Your task to perform on an android device: open device folders in google photos Image 0: 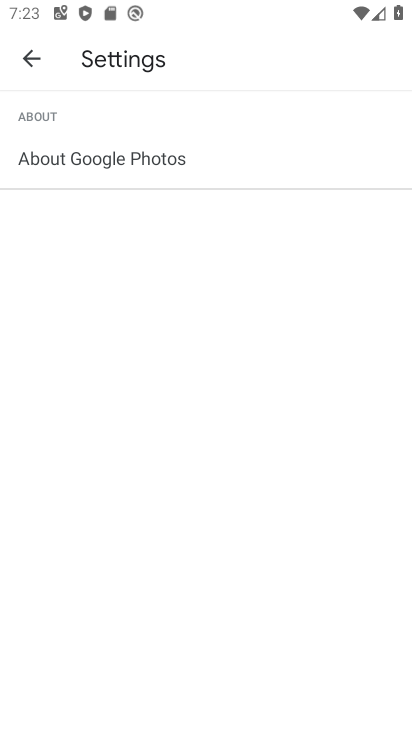
Step 0: press home button
Your task to perform on an android device: open device folders in google photos Image 1: 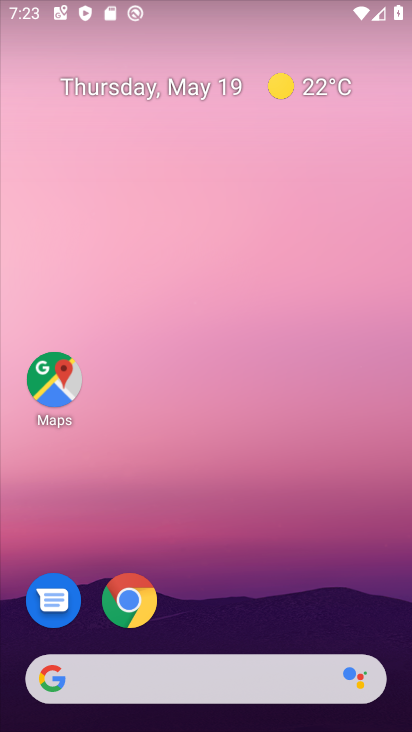
Step 1: drag from (340, 564) to (279, 127)
Your task to perform on an android device: open device folders in google photos Image 2: 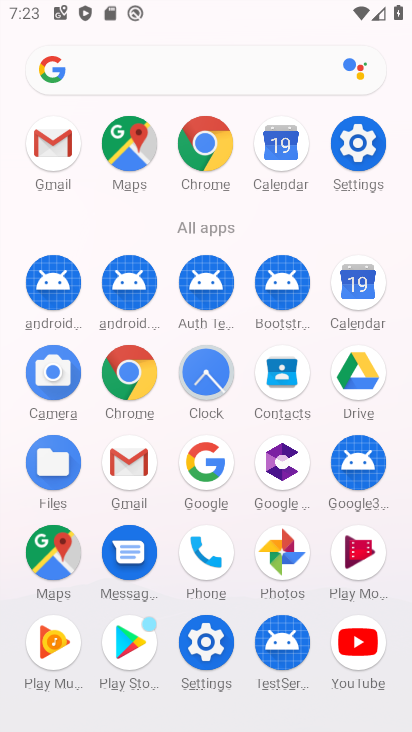
Step 2: click (279, 555)
Your task to perform on an android device: open device folders in google photos Image 3: 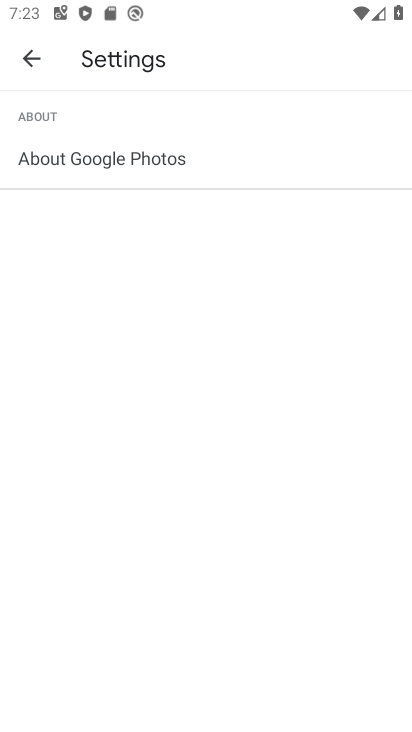
Step 3: click (28, 53)
Your task to perform on an android device: open device folders in google photos Image 4: 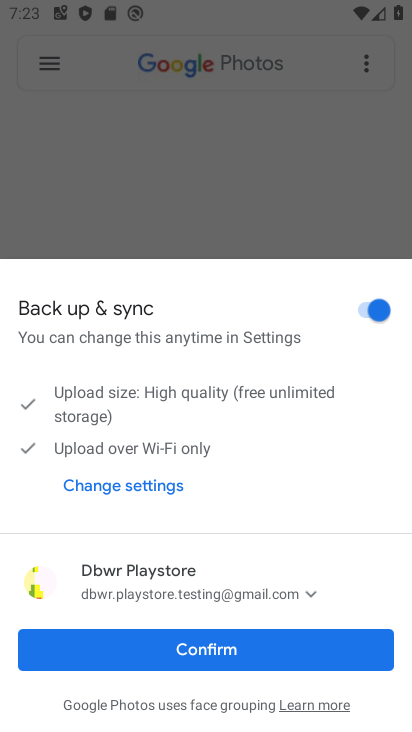
Step 4: click (281, 650)
Your task to perform on an android device: open device folders in google photos Image 5: 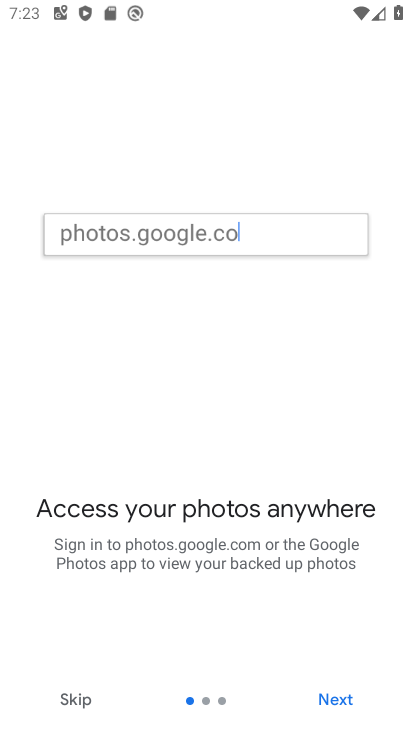
Step 5: click (327, 705)
Your task to perform on an android device: open device folders in google photos Image 6: 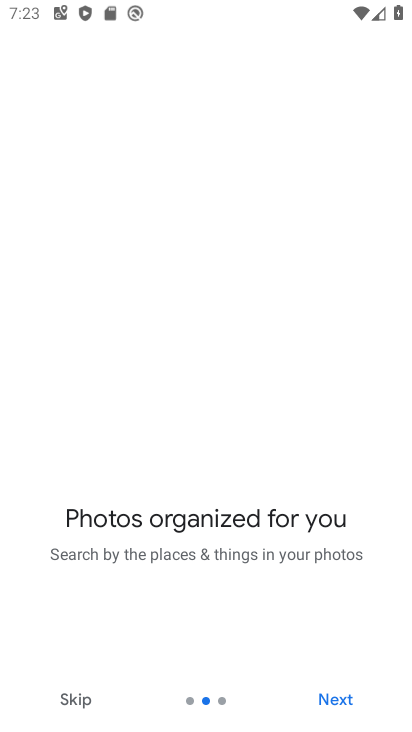
Step 6: click (327, 705)
Your task to perform on an android device: open device folders in google photos Image 7: 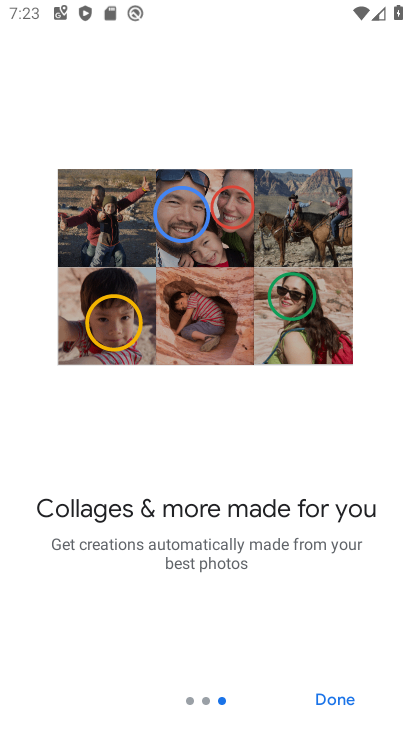
Step 7: click (327, 703)
Your task to perform on an android device: open device folders in google photos Image 8: 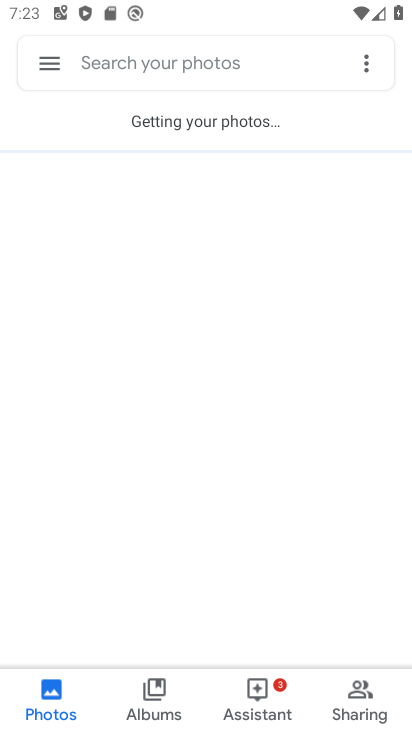
Step 8: click (48, 71)
Your task to perform on an android device: open device folders in google photos Image 9: 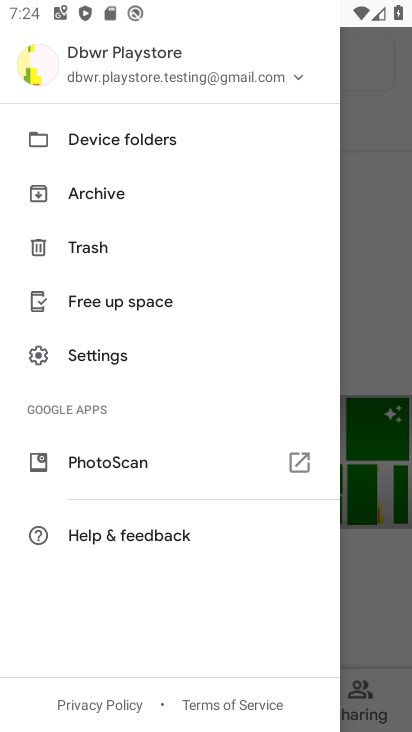
Step 9: click (190, 356)
Your task to perform on an android device: open device folders in google photos Image 10: 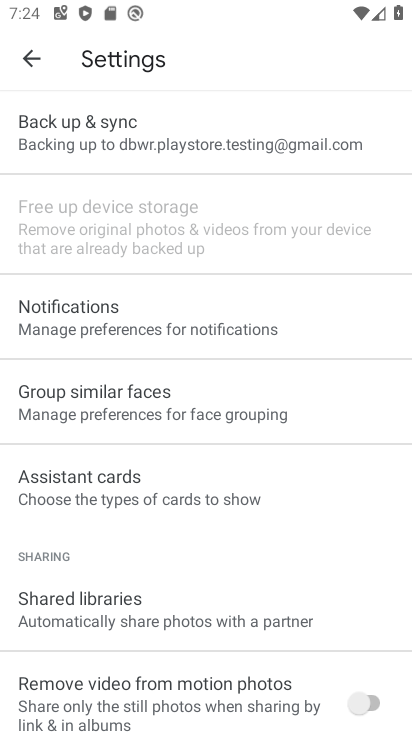
Step 10: click (189, 325)
Your task to perform on an android device: open device folders in google photos Image 11: 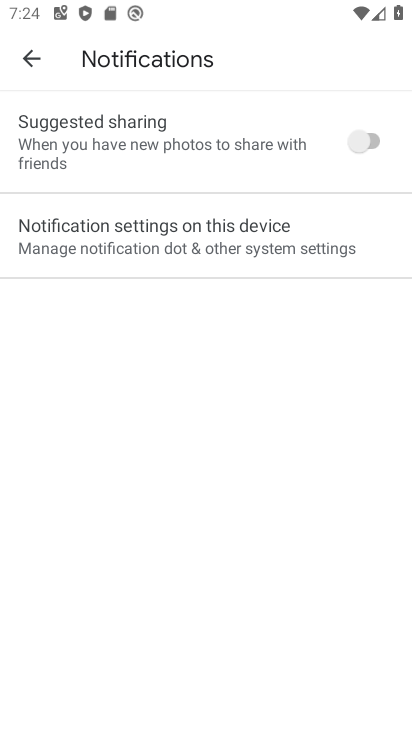
Step 11: click (195, 226)
Your task to perform on an android device: open device folders in google photos Image 12: 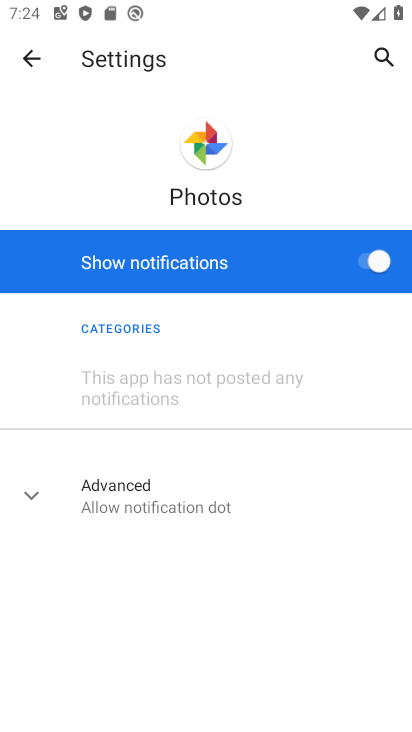
Step 12: task complete